Your task to perform on an android device: turn on javascript in the chrome app Image 0: 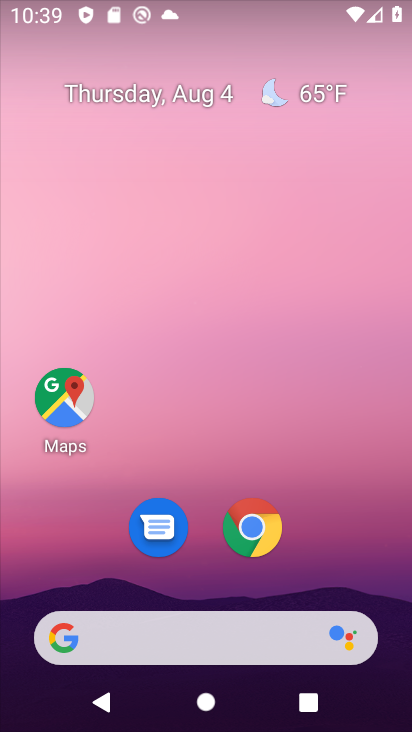
Step 0: click (257, 537)
Your task to perform on an android device: turn on javascript in the chrome app Image 1: 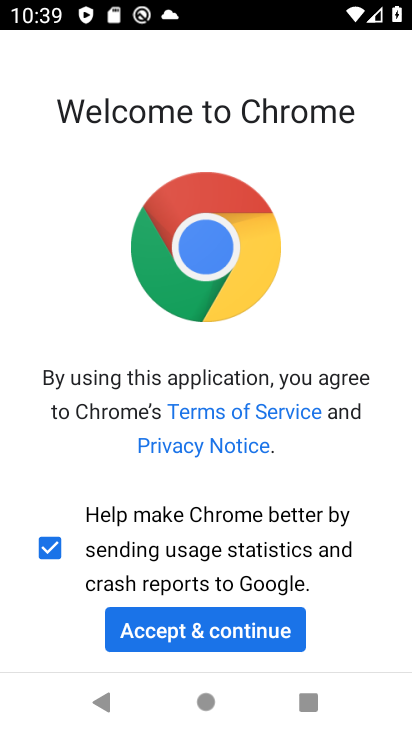
Step 1: click (150, 640)
Your task to perform on an android device: turn on javascript in the chrome app Image 2: 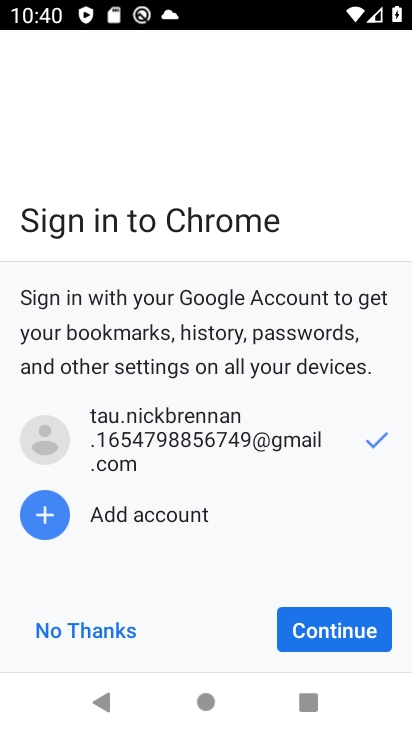
Step 2: click (354, 632)
Your task to perform on an android device: turn on javascript in the chrome app Image 3: 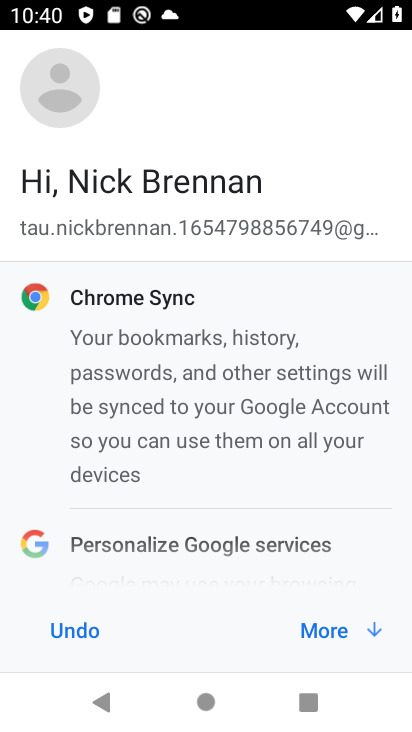
Step 3: click (354, 632)
Your task to perform on an android device: turn on javascript in the chrome app Image 4: 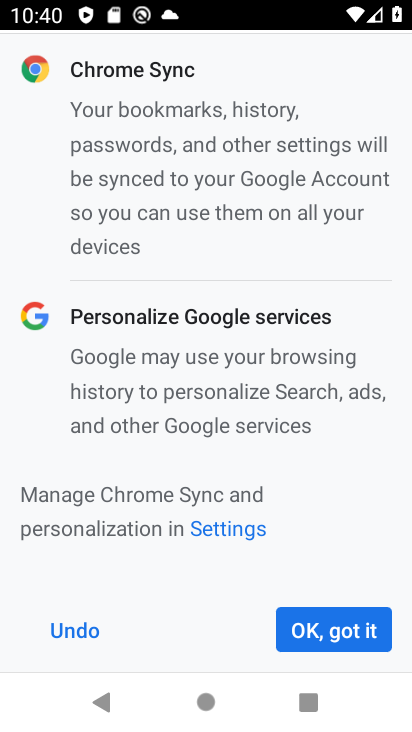
Step 4: click (354, 632)
Your task to perform on an android device: turn on javascript in the chrome app Image 5: 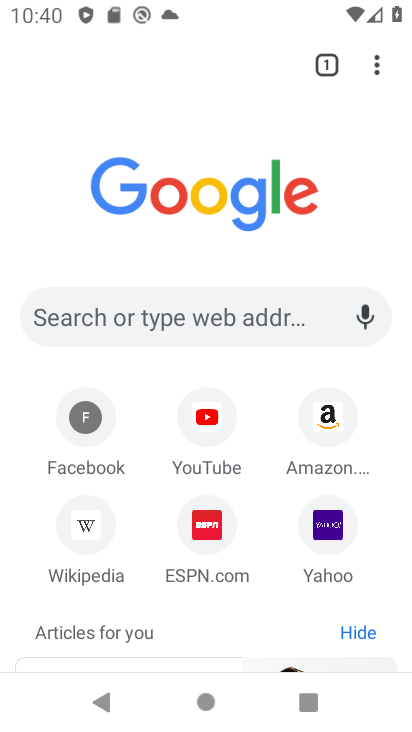
Step 5: click (378, 63)
Your task to perform on an android device: turn on javascript in the chrome app Image 6: 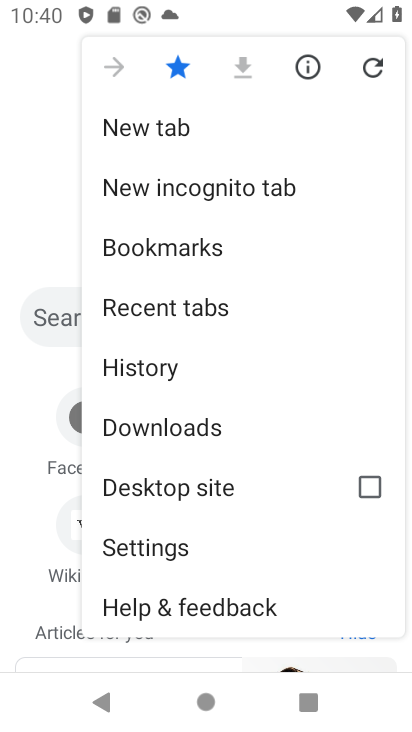
Step 6: click (182, 550)
Your task to perform on an android device: turn on javascript in the chrome app Image 7: 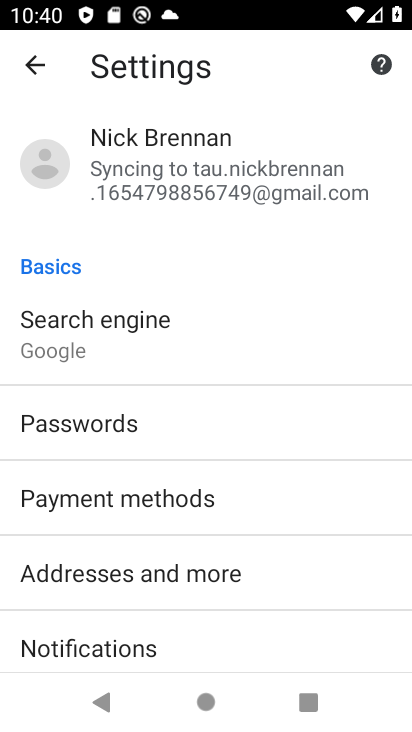
Step 7: drag from (225, 586) to (260, 1)
Your task to perform on an android device: turn on javascript in the chrome app Image 8: 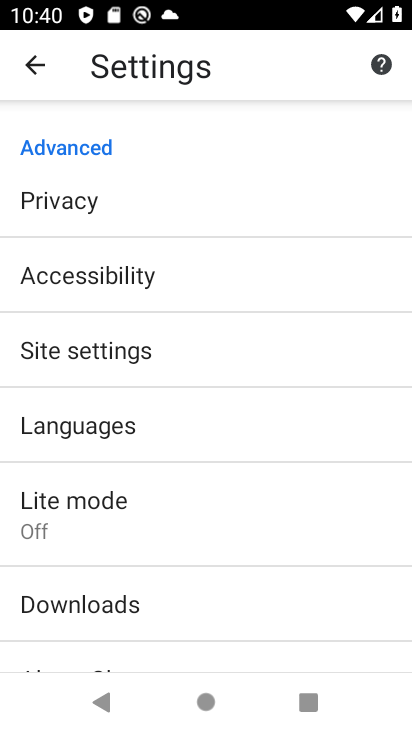
Step 8: click (204, 362)
Your task to perform on an android device: turn on javascript in the chrome app Image 9: 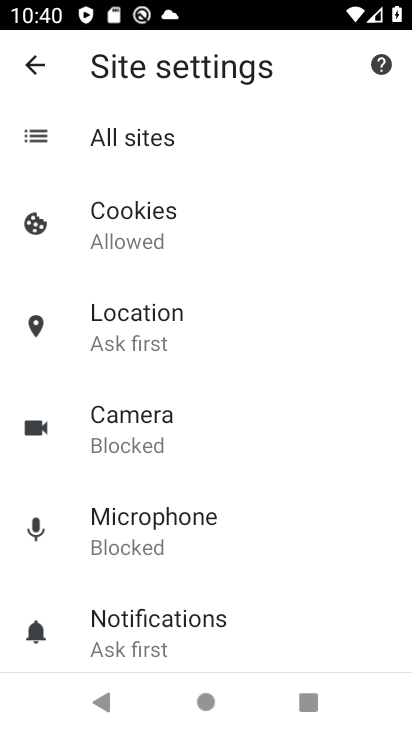
Step 9: drag from (261, 585) to (268, 55)
Your task to perform on an android device: turn on javascript in the chrome app Image 10: 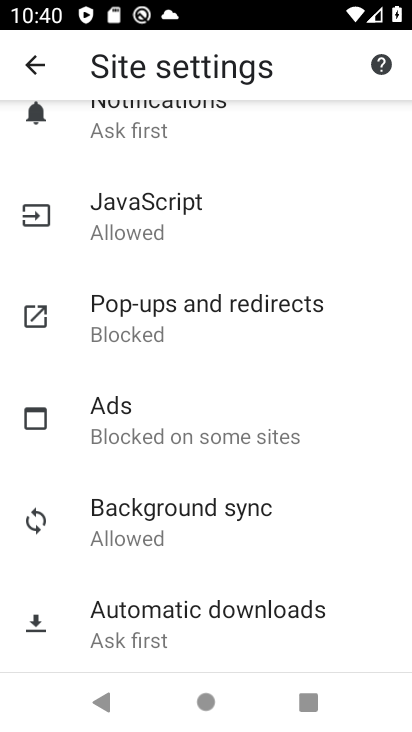
Step 10: click (189, 215)
Your task to perform on an android device: turn on javascript in the chrome app Image 11: 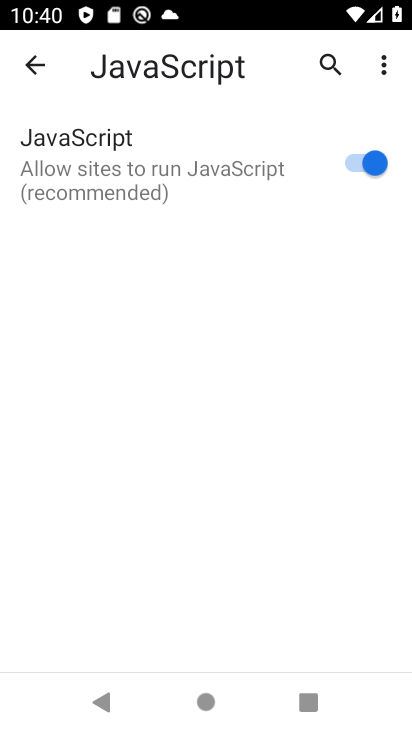
Step 11: task complete